Your task to perform on an android device: turn on improve location accuracy Image 0: 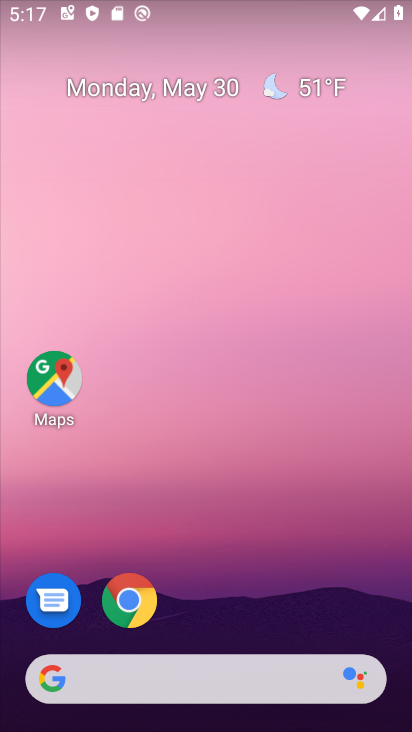
Step 0: drag from (263, 660) to (142, 60)
Your task to perform on an android device: turn on improve location accuracy Image 1: 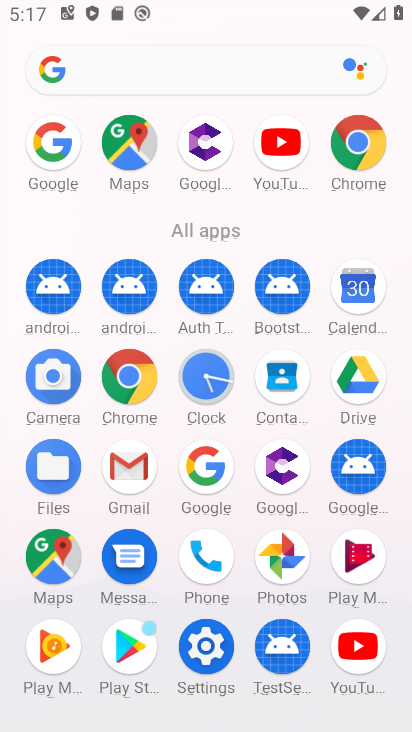
Step 1: click (220, 660)
Your task to perform on an android device: turn on improve location accuracy Image 2: 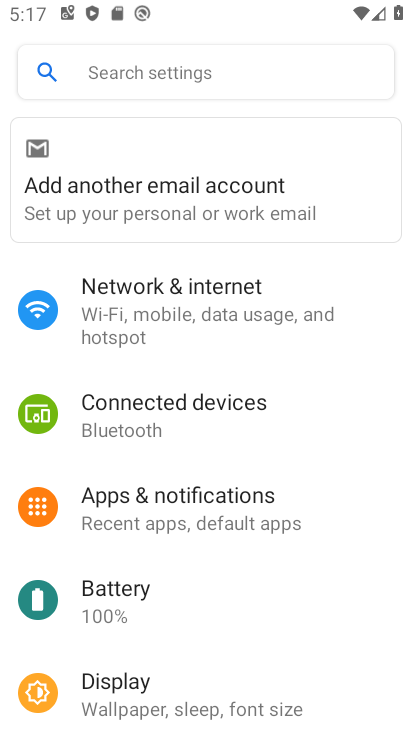
Step 2: drag from (87, 327) to (97, 186)
Your task to perform on an android device: turn on improve location accuracy Image 3: 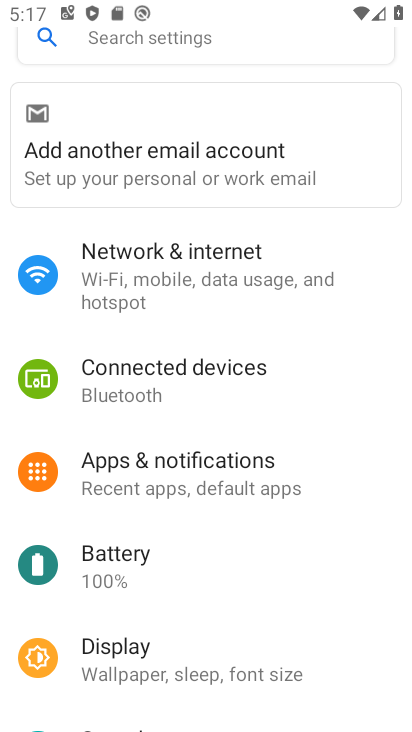
Step 3: drag from (140, 456) to (155, 229)
Your task to perform on an android device: turn on improve location accuracy Image 4: 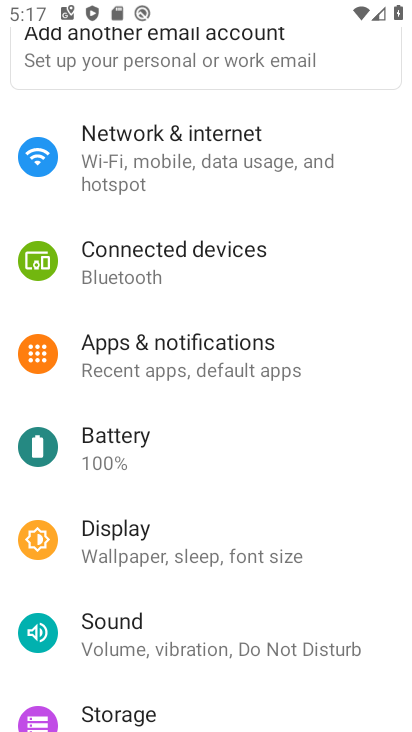
Step 4: drag from (148, 292) to (163, 155)
Your task to perform on an android device: turn on improve location accuracy Image 5: 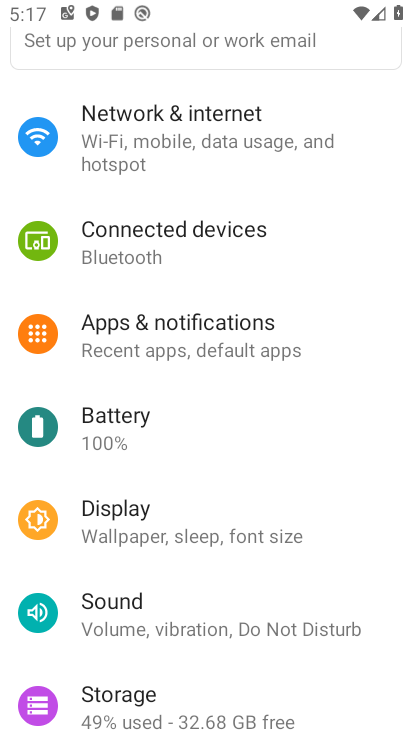
Step 5: drag from (167, 392) to (201, 130)
Your task to perform on an android device: turn on improve location accuracy Image 6: 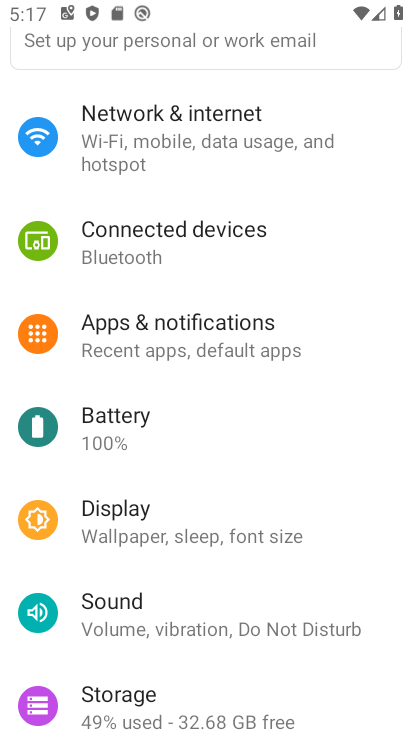
Step 6: drag from (161, 472) to (141, 86)
Your task to perform on an android device: turn on improve location accuracy Image 7: 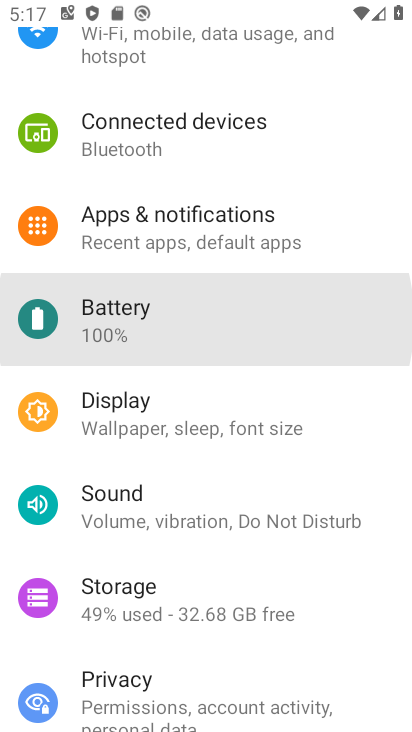
Step 7: drag from (144, 503) to (158, 203)
Your task to perform on an android device: turn on improve location accuracy Image 8: 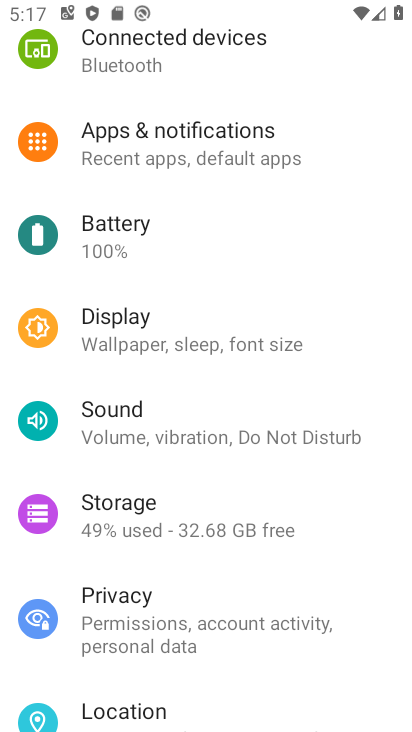
Step 8: drag from (225, 519) to (205, 218)
Your task to perform on an android device: turn on improve location accuracy Image 9: 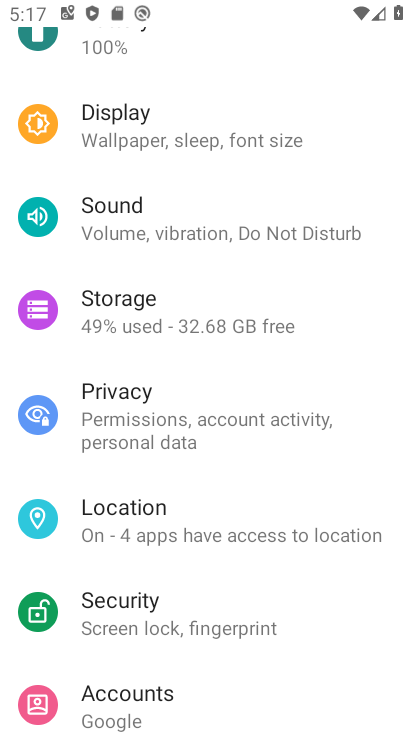
Step 9: drag from (225, 333) to (213, 201)
Your task to perform on an android device: turn on improve location accuracy Image 10: 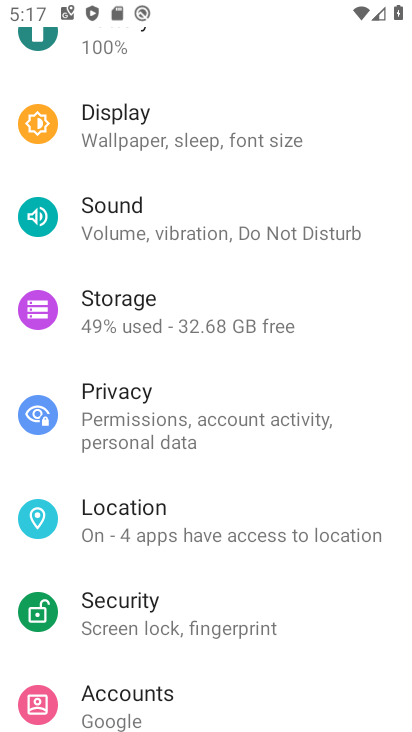
Step 10: drag from (168, 254) to (205, 513)
Your task to perform on an android device: turn on improve location accuracy Image 11: 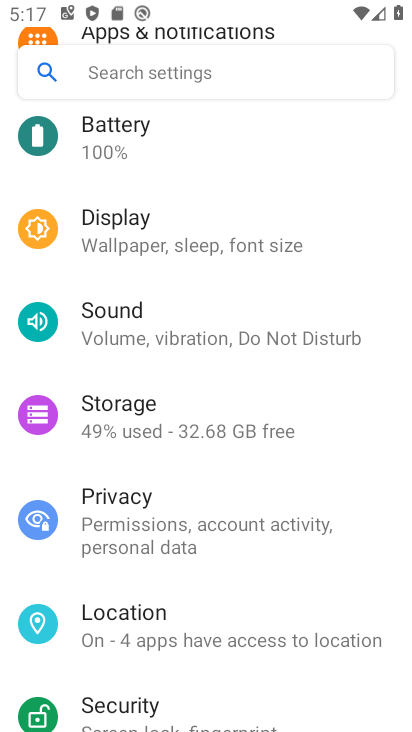
Step 11: drag from (205, 256) to (210, 635)
Your task to perform on an android device: turn on improve location accuracy Image 12: 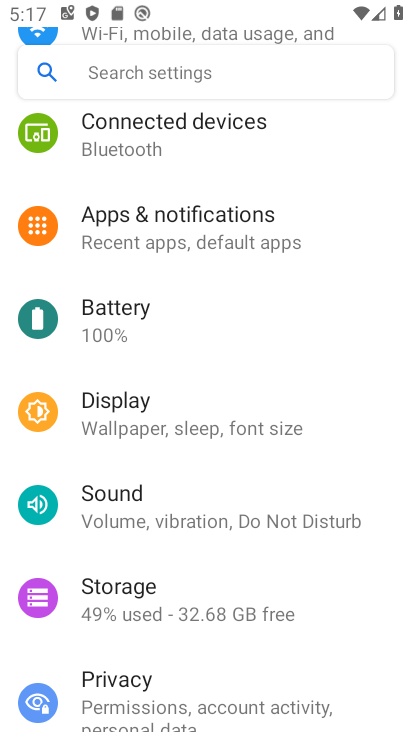
Step 12: drag from (203, 325) to (203, 570)
Your task to perform on an android device: turn on improve location accuracy Image 13: 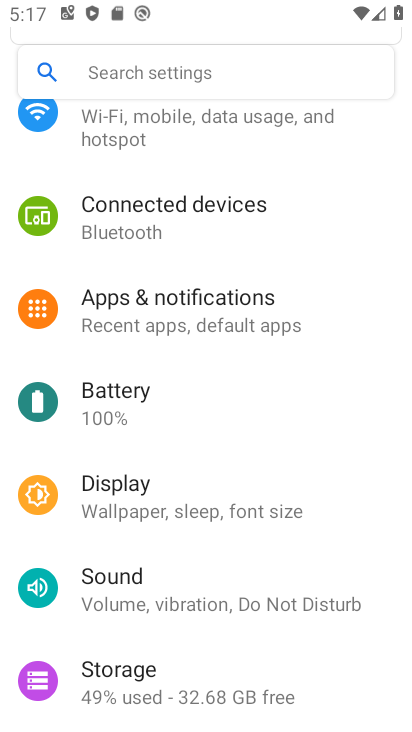
Step 13: click (206, 298)
Your task to perform on an android device: turn on improve location accuracy Image 14: 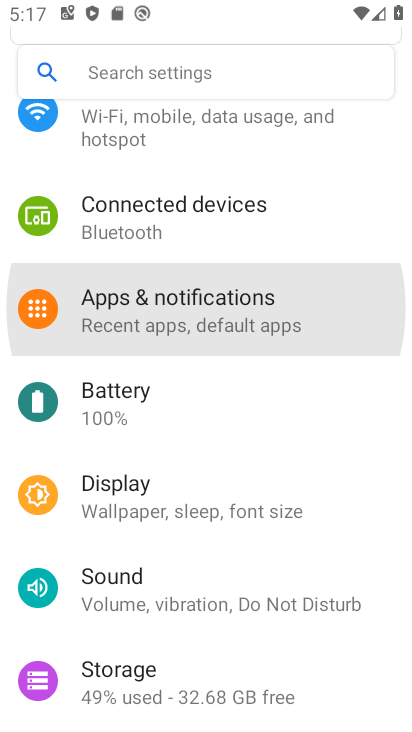
Step 14: click (207, 299)
Your task to perform on an android device: turn on improve location accuracy Image 15: 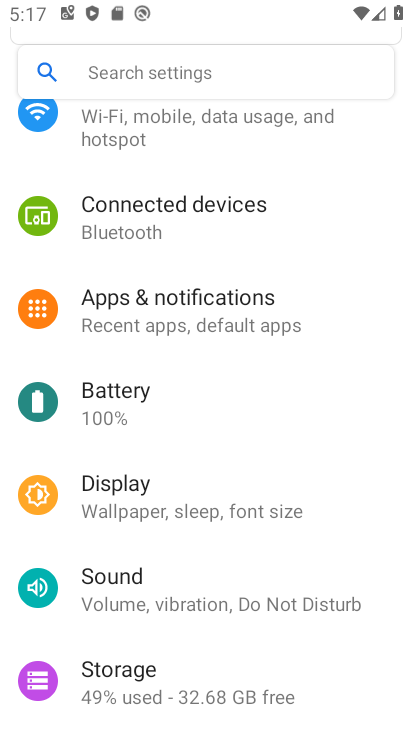
Step 15: click (219, 302)
Your task to perform on an android device: turn on improve location accuracy Image 16: 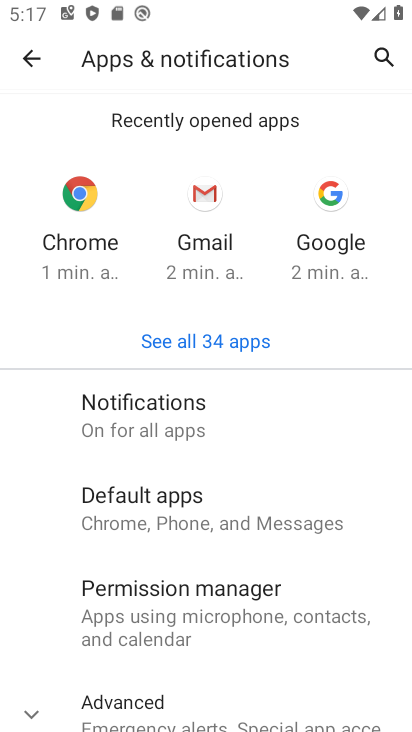
Step 16: click (206, 254)
Your task to perform on an android device: turn on improve location accuracy Image 17: 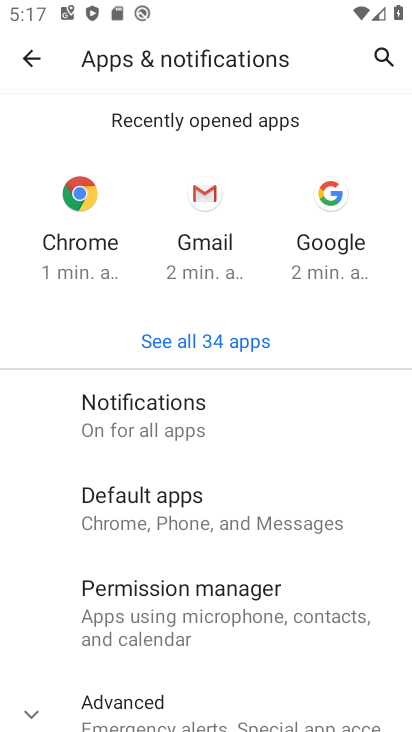
Step 17: drag from (172, 498) to (168, 118)
Your task to perform on an android device: turn on improve location accuracy Image 18: 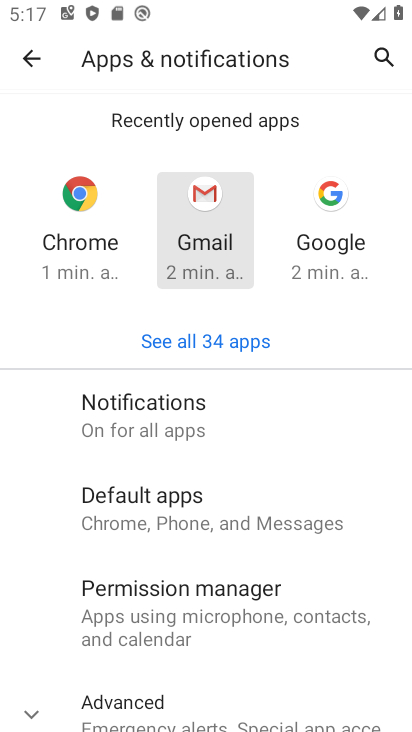
Step 18: drag from (150, 256) to (149, 134)
Your task to perform on an android device: turn on improve location accuracy Image 19: 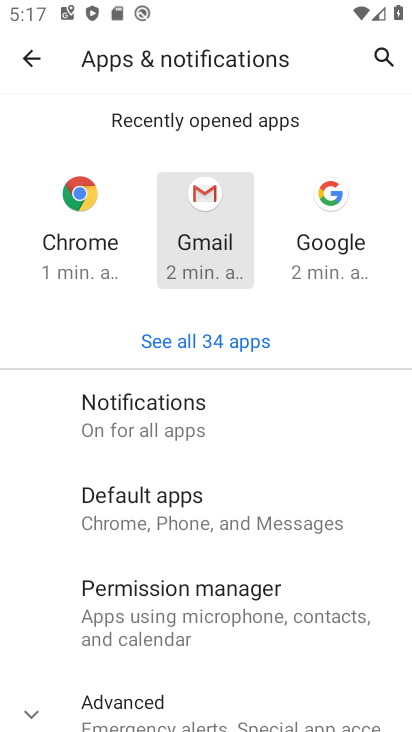
Step 19: drag from (163, 380) to (163, 128)
Your task to perform on an android device: turn on improve location accuracy Image 20: 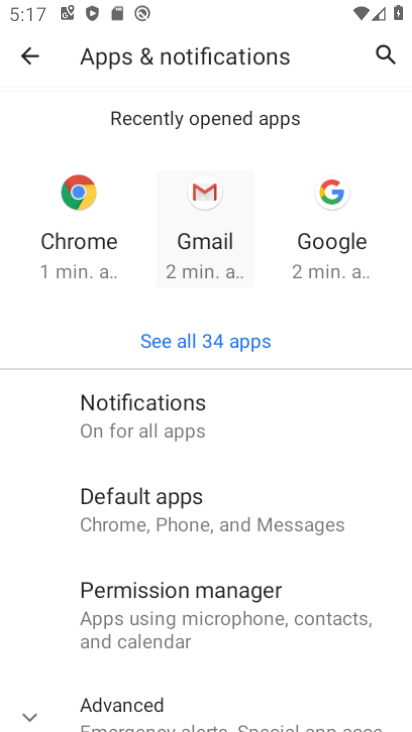
Step 20: drag from (165, 411) to (187, 146)
Your task to perform on an android device: turn on improve location accuracy Image 21: 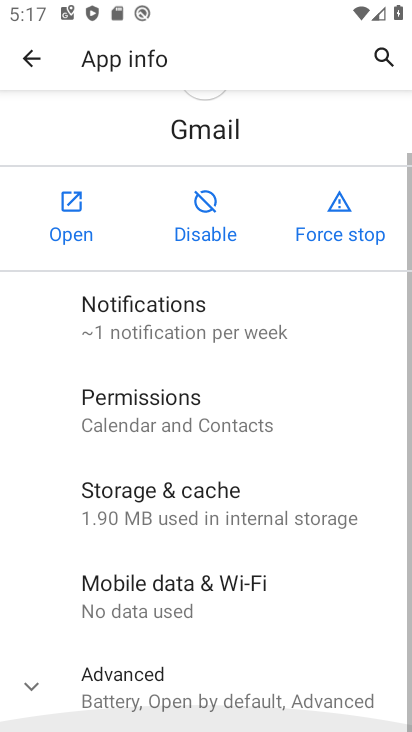
Step 21: drag from (177, 243) to (188, 178)
Your task to perform on an android device: turn on improve location accuracy Image 22: 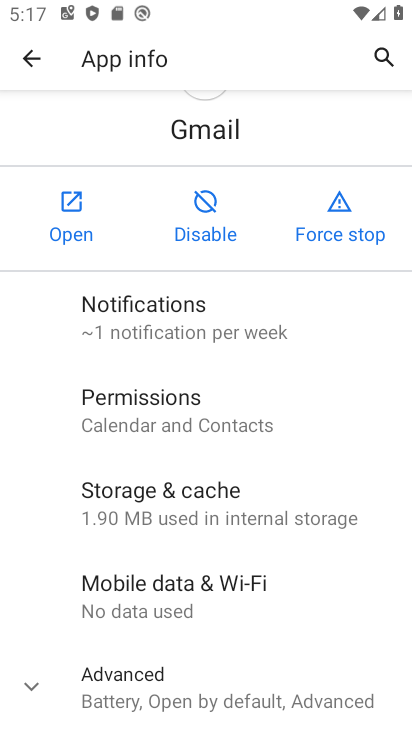
Step 22: click (170, 250)
Your task to perform on an android device: turn on improve location accuracy Image 23: 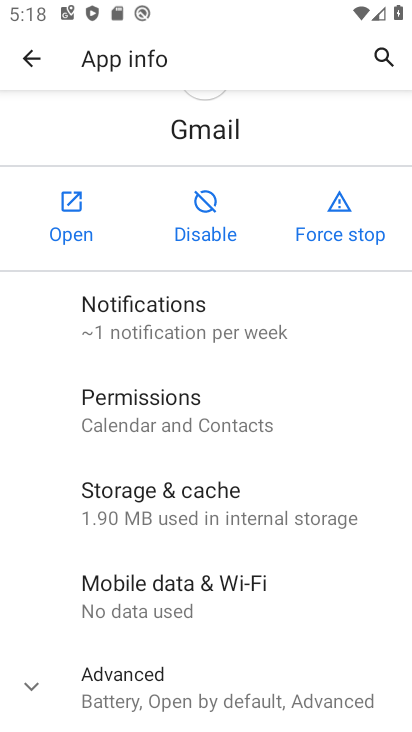
Step 23: drag from (180, 527) to (180, 276)
Your task to perform on an android device: turn on improve location accuracy Image 24: 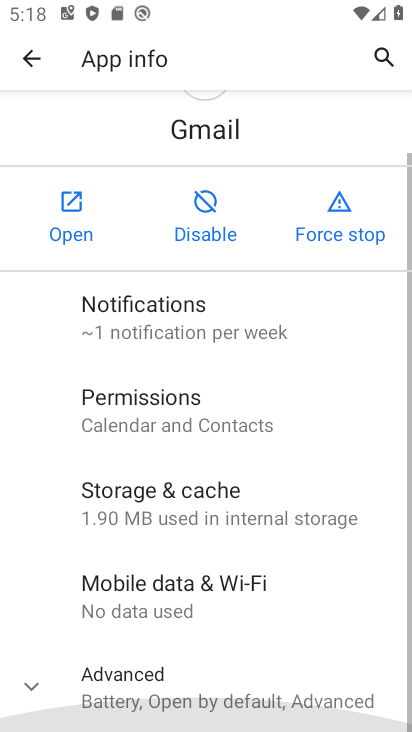
Step 24: drag from (171, 534) to (182, 318)
Your task to perform on an android device: turn on improve location accuracy Image 25: 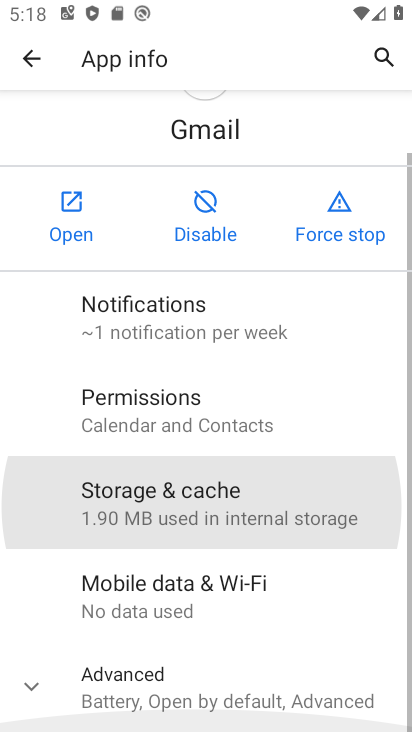
Step 25: drag from (172, 518) to (172, 257)
Your task to perform on an android device: turn on improve location accuracy Image 26: 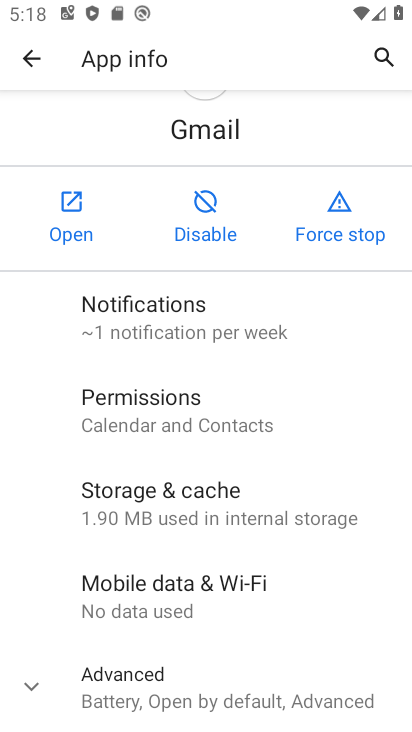
Step 26: click (18, 71)
Your task to perform on an android device: turn on improve location accuracy Image 27: 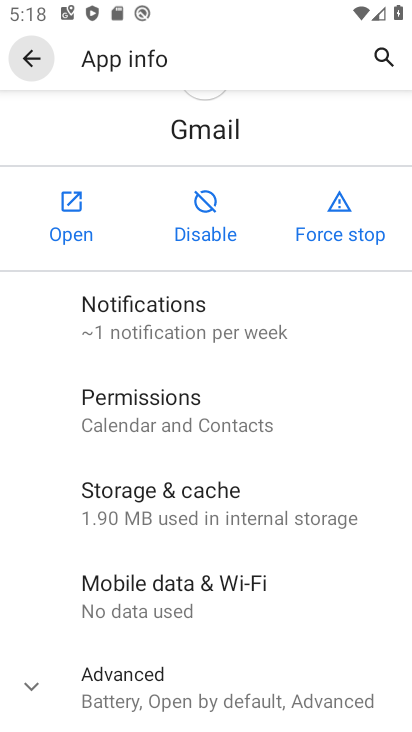
Step 27: click (18, 71)
Your task to perform on an android device: turn on improve location accuracy Image 28: 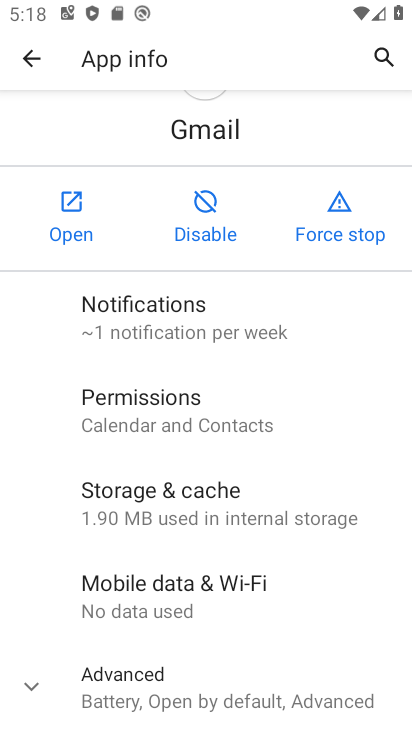
Step 28: click (17, 70)
Your task to perform on an android device: turn on improve location accuracy Image 29: 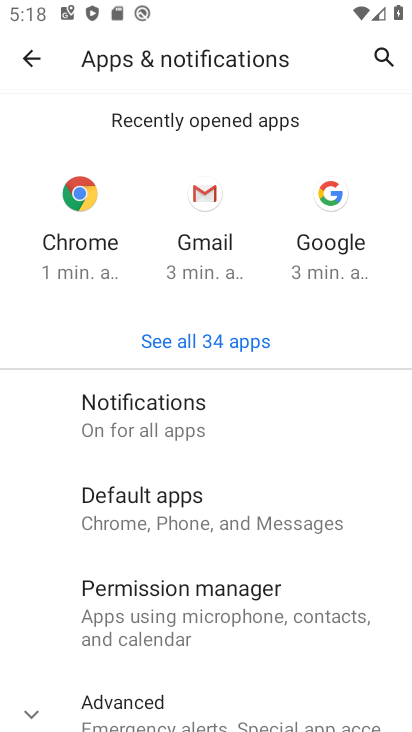
Step 29: click (155, 410)
Your task to perform on an android device: turn on improve location accuracy Image 30: 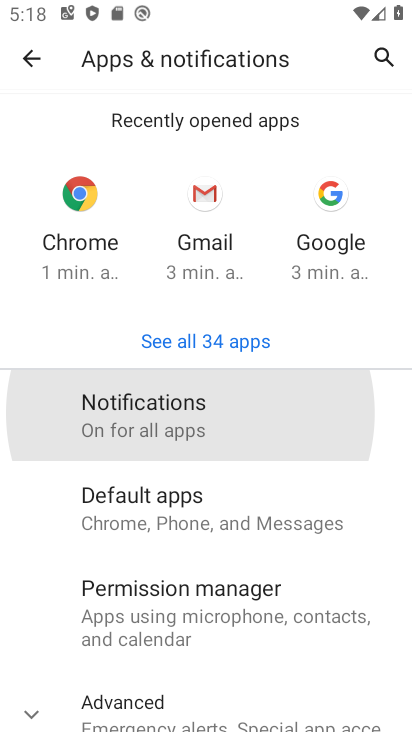
Step 30: click (152, 414)
Your task to perform on an android device: turn on improve location accuracy Image 31: 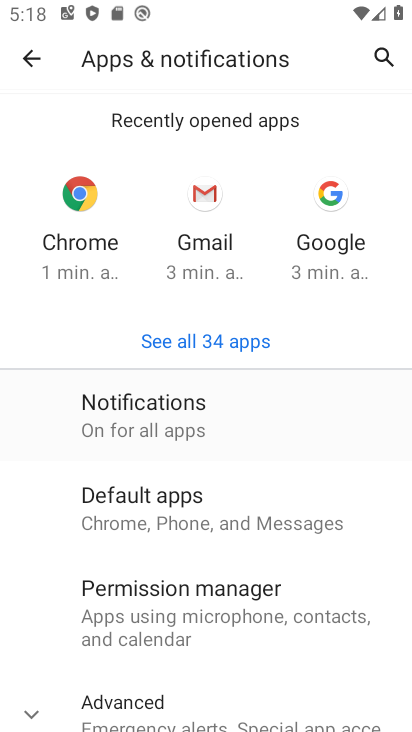
Step 31: click (152, 414)
Your task to perform on an android device: turn on improve location accuracy Image 32: 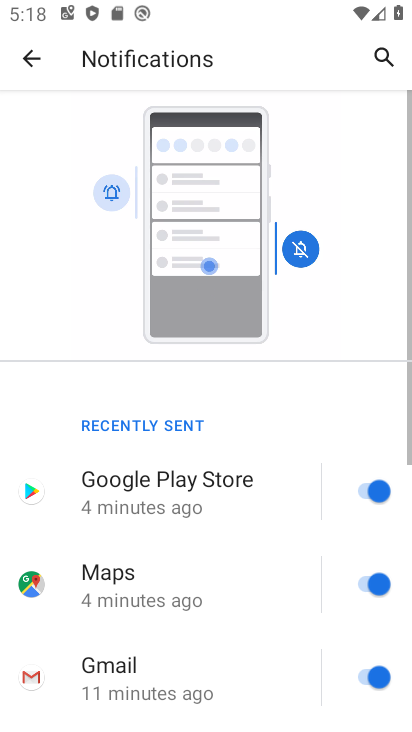
Step 32: drag from (175, 465) to (178, 226)
Your task to perform on an android device: turn on improve location accuracy Image 33: 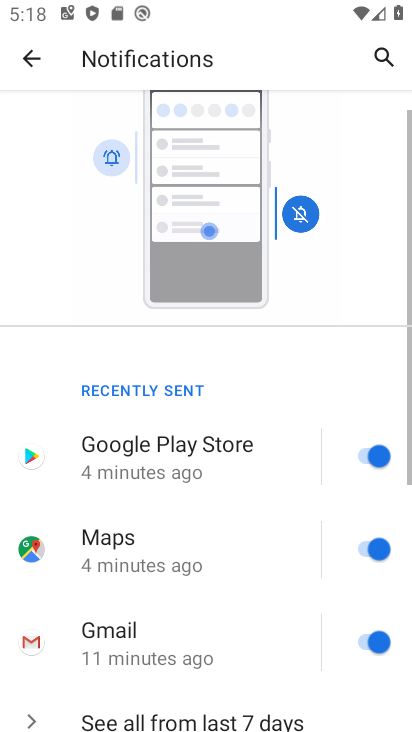
Step 33: drag from (178, 516) to (145, 253)
Your task to perform on an android device: turn on improve location accuracy Image 34: 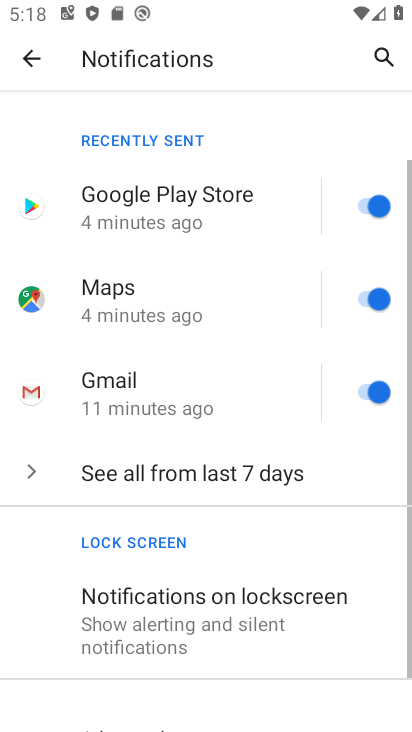
Step 34: drag from (211, 257) to (220, 203)
Your task to perform on an android device: turn on improve location accuracy Image 35: 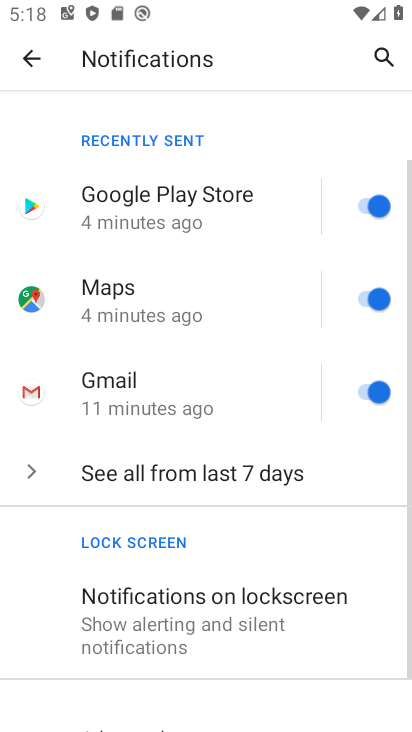
Step 35: drag from (282, 485) to (269, 187)
Your task to perform on an android device: turn on improve location accuracy Image 36: 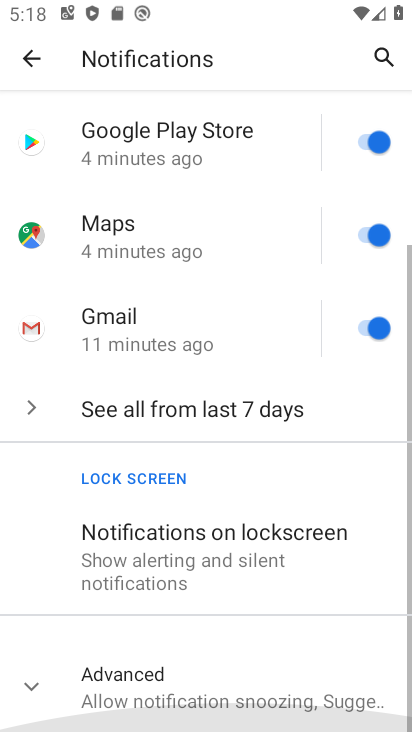
Step 36: drag from (233, 479) to (229, 200)
Your task to perform on an android device: turn on improve location accuracy Image 37: 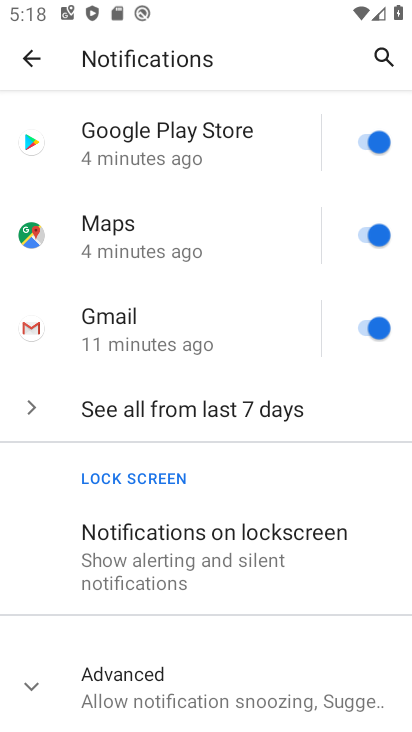
Step 37: click (135, 697)
Your task to perform on an android device: turn on improve location accuracy Image 38: 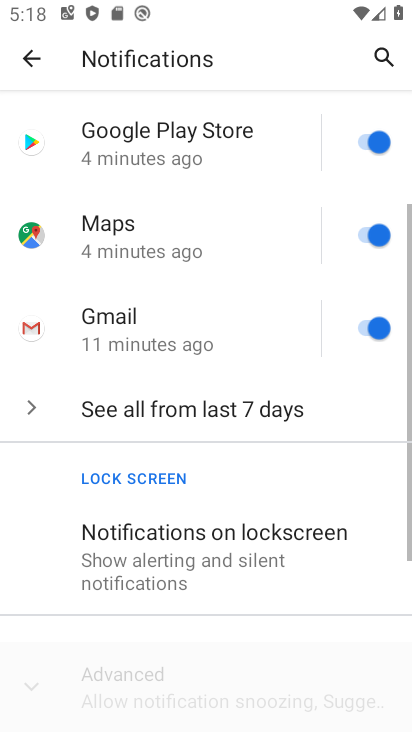
Step 38: click (130, 701)
Your task to perform on an android device: turn on improve location accuracy Image 39: 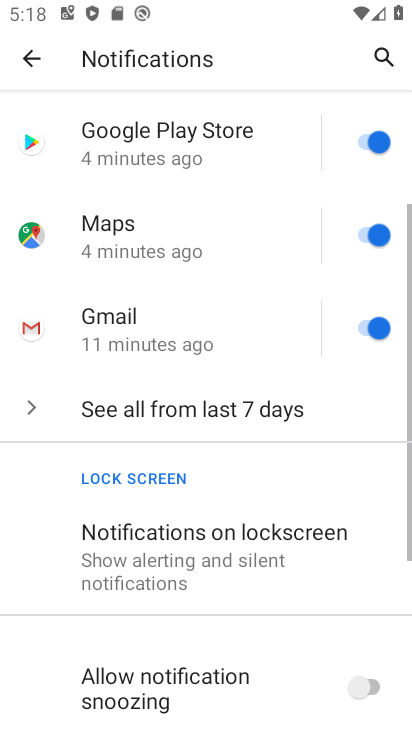
Step 39: click (130, 701)
Your task to perform on an android device: turn on improve location accuracy Image 40: 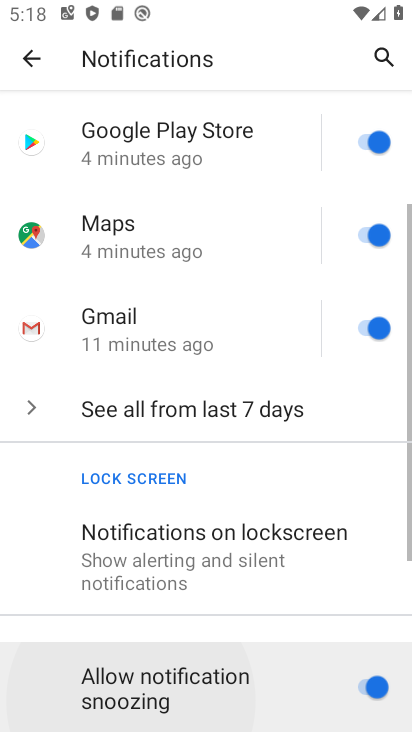
Step 40: click (130, 702)
Your task to perform on an android device: turn on improve location accuracy Image 41: 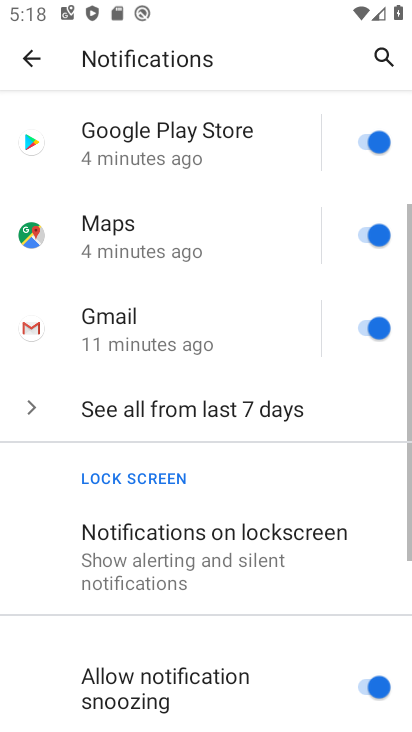
Step 41: drag from (210, 616) to (210, 369)
Your task to perform on an android device: turn on improve location accuracy Image 42: 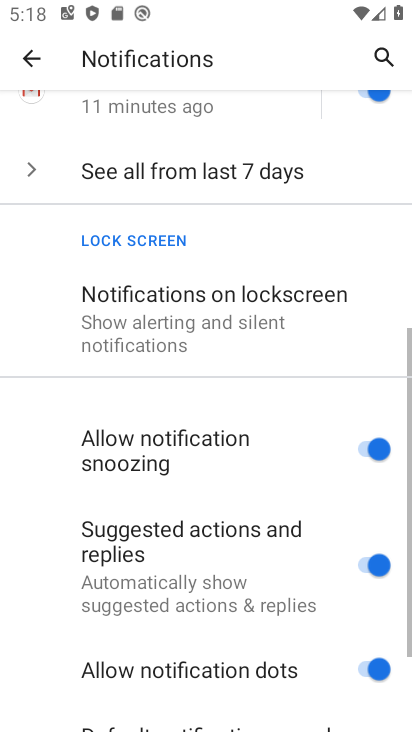
Step 42: drag from (230, 531) to (225, 308)
Your task to perform on an android device: turn on improve location accuracy Image 43: 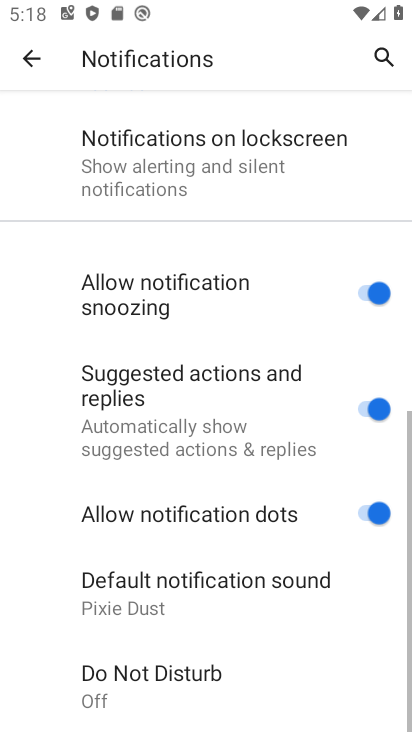
Step 43: drag from (240, 540) to (232, 309)
Your task to perform on an android device: turn on improve location accuracy Image 44: 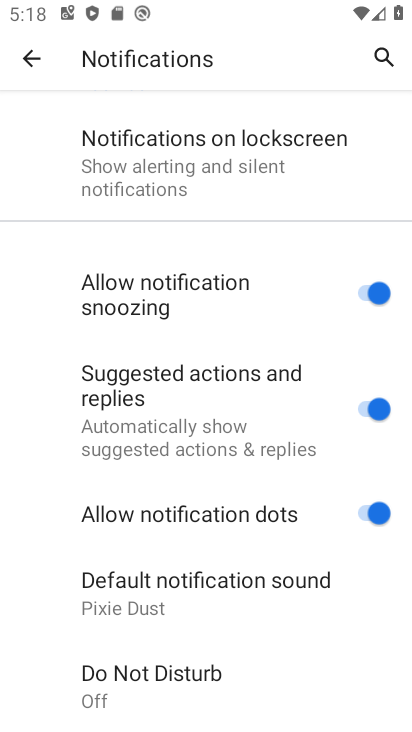
Step 44: click (384, 513)
Your task to perform on an android device: turn on improve location accuracy Image 45: 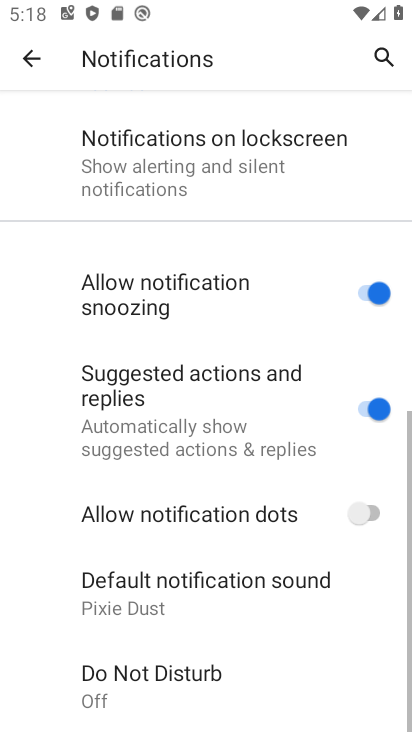
Step 45: task complete